Your task to perform on an android device: Search for sushi restaurants on Maps Image 0: 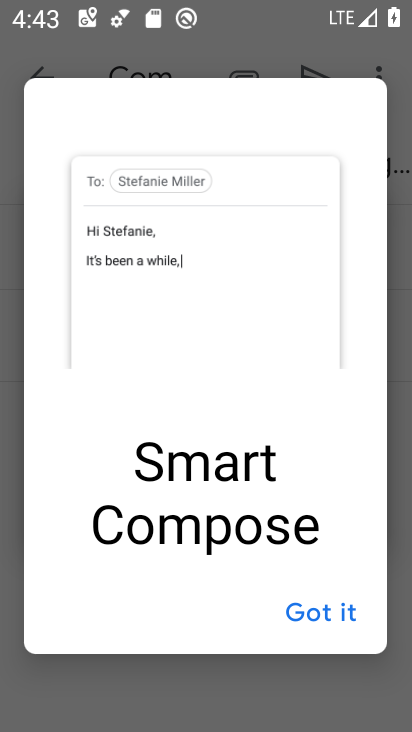
Step 0: press home button
Your task to perform on an android device: Search for sushi restaurants on Maps Image 1: 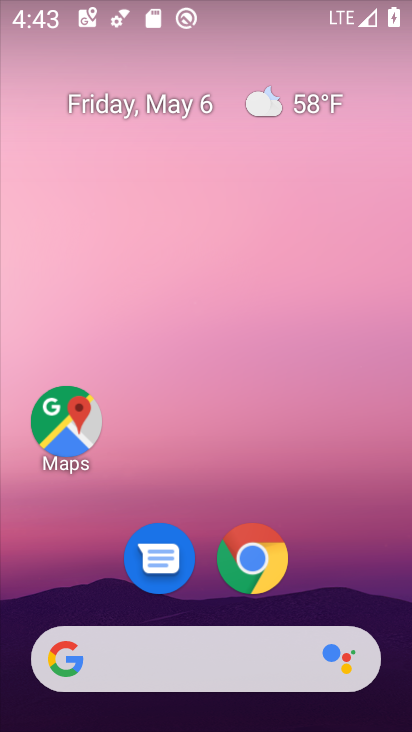
Step 1: drag from (322, 646) to (409, 602)
Your task to perform on an android device: Search for sushi restaurants on Maps Image 2: 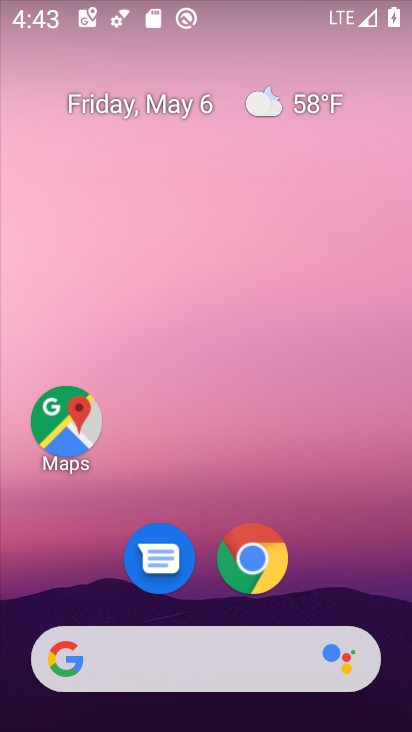
Step 2: drag from (328, 582) to (406, 1)
Your task to perform on an android device: Search for sushi restaurants on Maps Image 3: 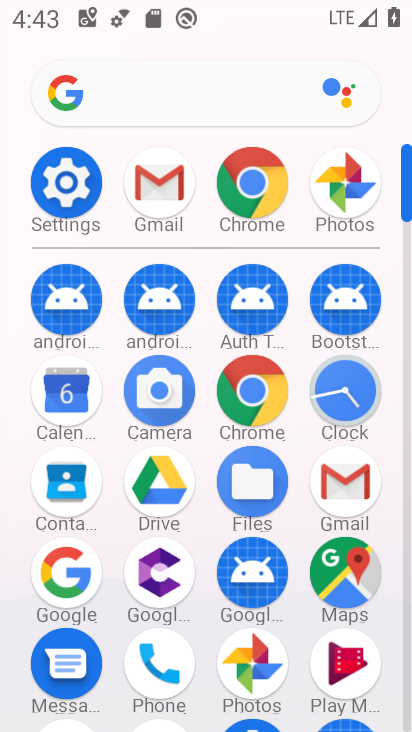
Step 3: click (342, 571)
Your task to perform on an android device: Search for sushi restaurants on Maps Image 4: 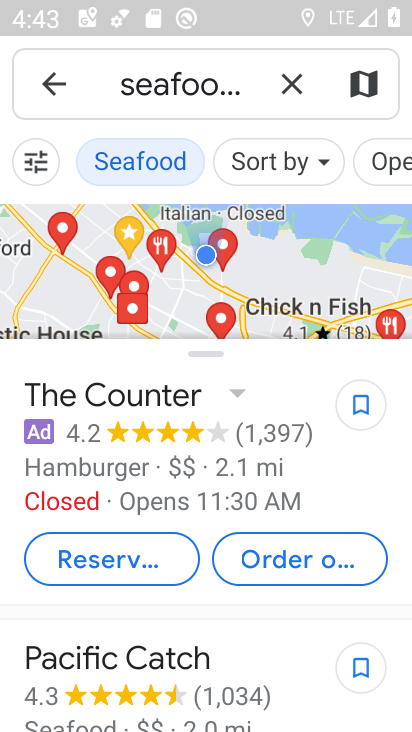
Step 4: click (285, 84)
Your task to perform on an android device: Search for sushi restaurants on Maps Image 5: 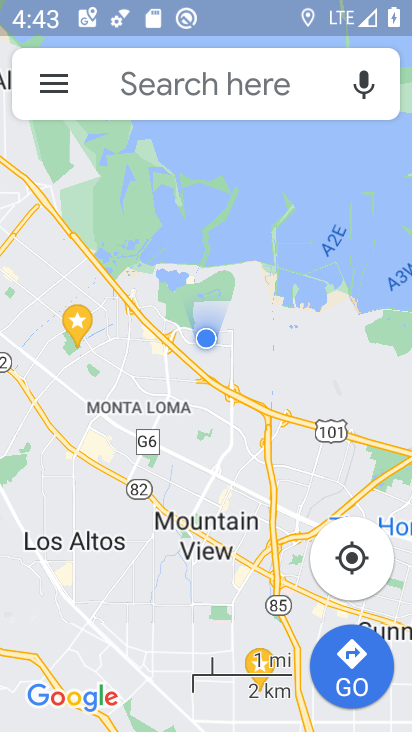
Step 5: click (208, 94)
Your task to perform on an android device: Search for sushi restaurants on Maps Image 6: 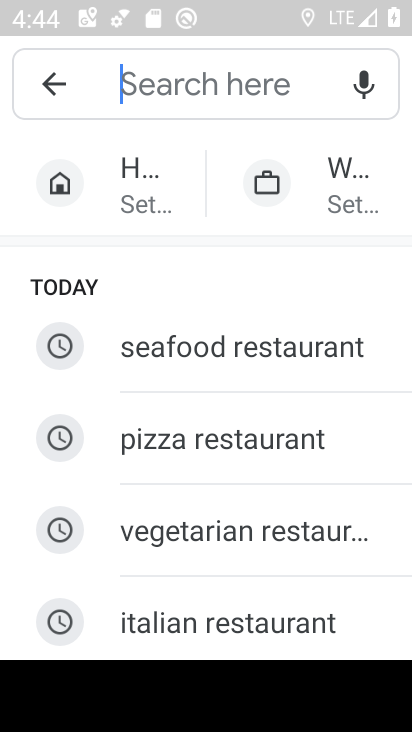
Step 6: type "sushi restaurant"
Your task to perform on an android device: Search for sushi restaurants on Maps Image 7: 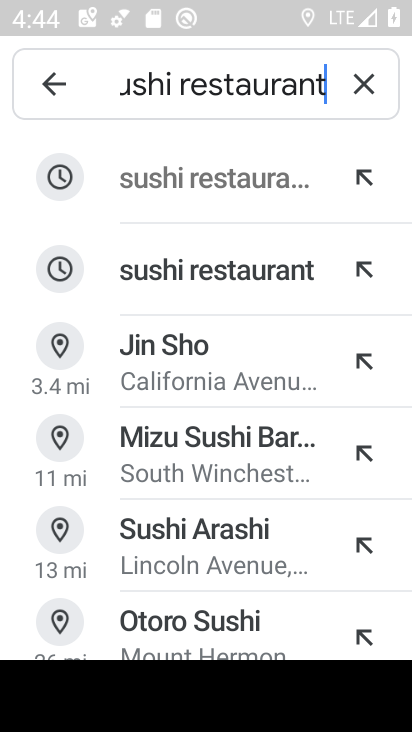
Step 7: click (224, 276)
Your task to perform on an android device: Search for sushi restaurants on Maps Image 8: 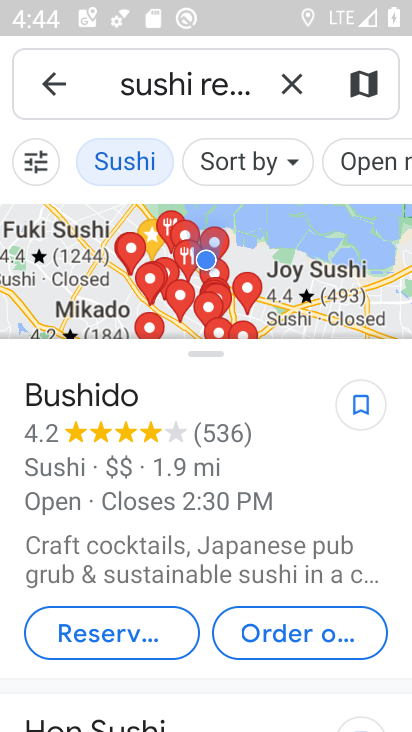
Step 8: task complete